Your task to perform on an android device: Open settings on Google Maps Image 0: 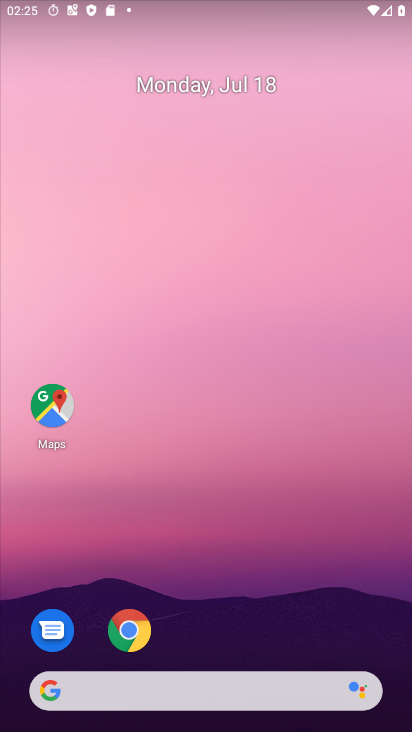
Step 0: click (47, 395)
Your task to perform on an android device: Open settings on Google Maps Image 1: 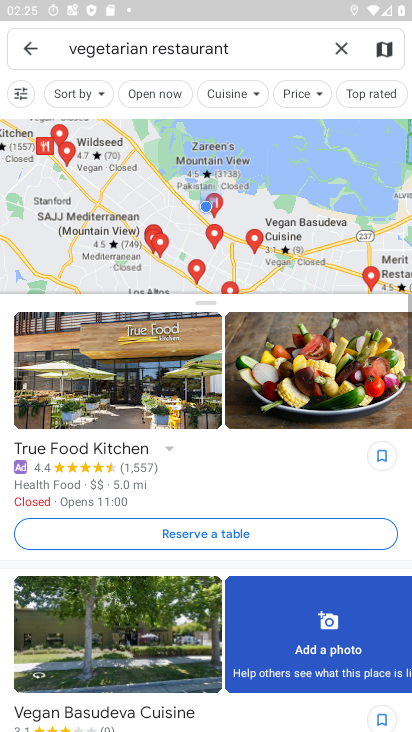
Step 1: click (41, 56)
Your task to perform on an android device: Open settings on Google Maps Image 2: 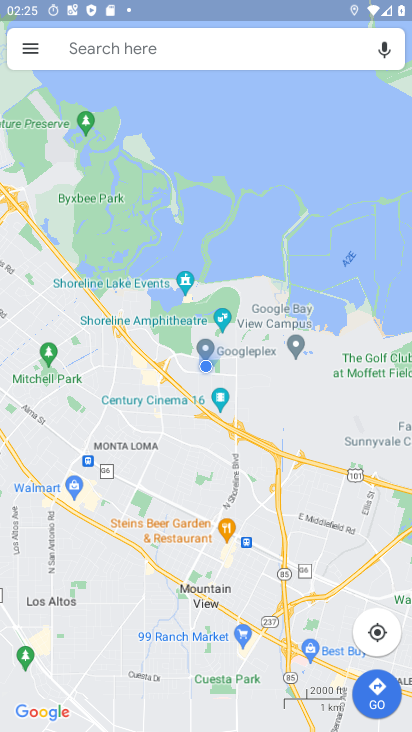
Step 2: click (33, 52)
Your task to perform on an android device: Open settings on Google Maps Image 3: 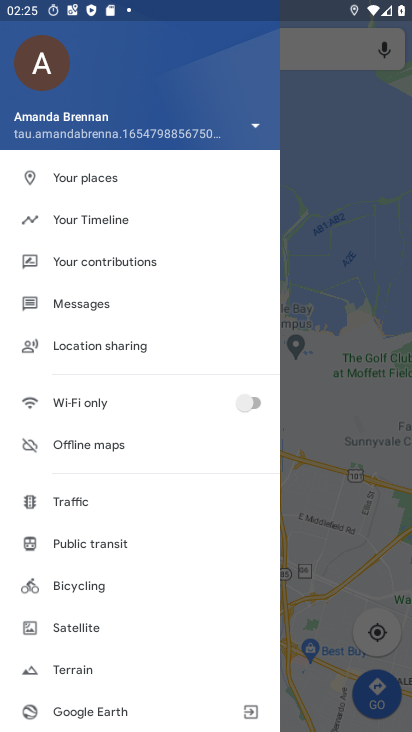
Step 3: drag from (126, 667) to (151, 222)
Your task to perform on an android device: Open settings on Google Maps Image 4: 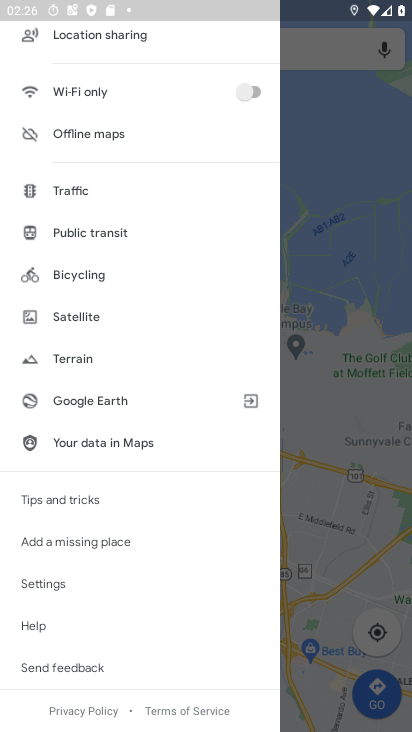
Step 4: click (71, 586)
Your task to perform on an android device: Open settings on Google Maps Image 5: 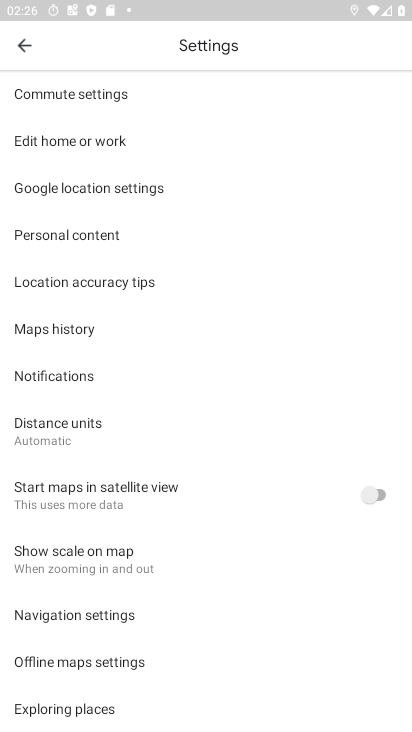
Step 5: task complete